Your task to perform on an android device: turn off location Image 0: 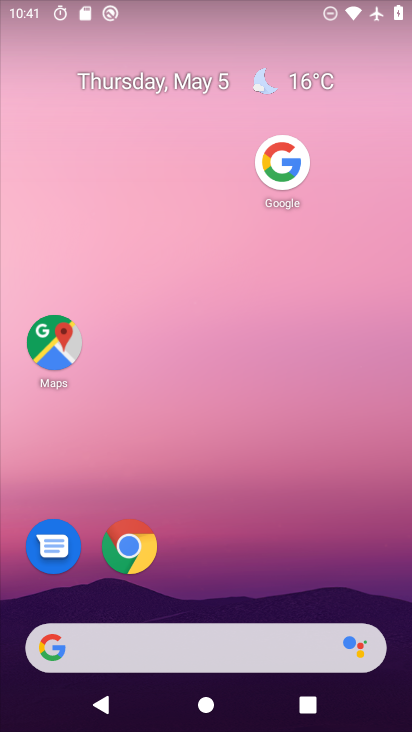
Step 0: drag from (208, 661) to (349, 76)
Your task to perform on an android device: turn off location Image 1: 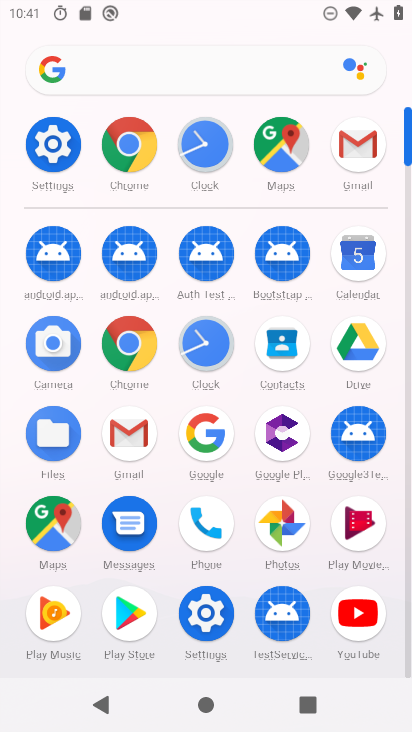
Step 1: click (62, 146)
Your task to perform on an android device: turn off location Image 2: 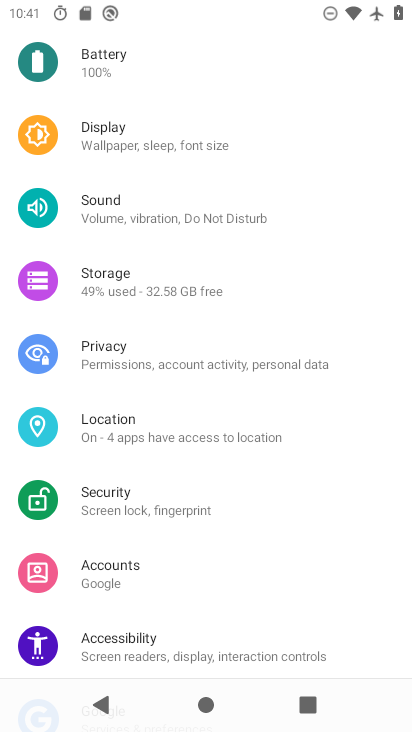
Step 2: click (134, 422)
Your task to perform on an android device: turn off location Image 3: 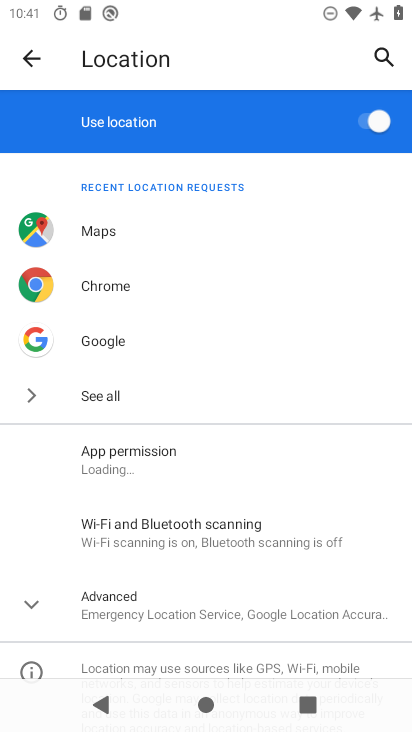
Step 3: click (366, 121)
Your task to perform on an android device: turn off location Image 4: 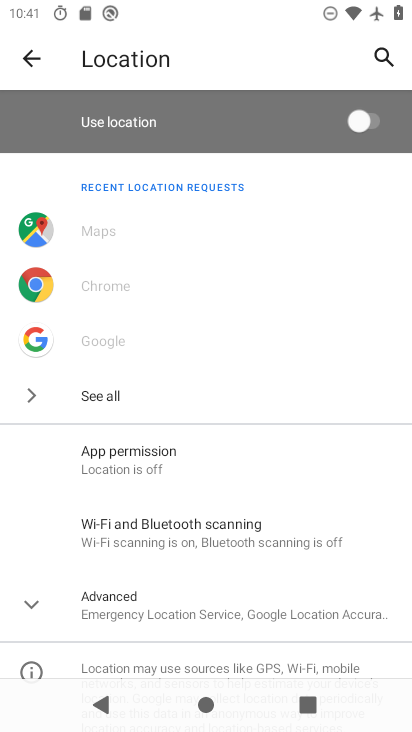
Step 4: task complete